Your task to perform on an android device: add a contact Image 0: 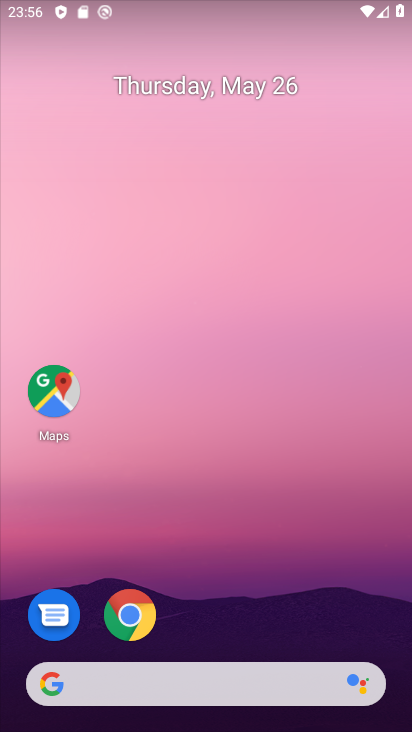
Step 0: drag from (357, 593) to (342, 217)
Your task to perform on an android device: add a contact Image 1: 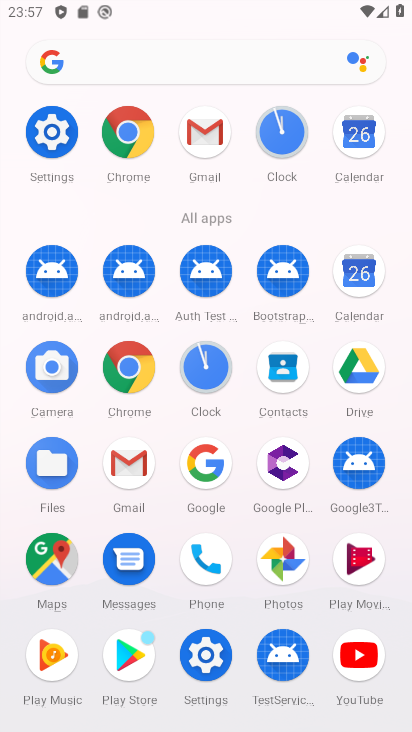
Step 1: click (279, 383)
Your task to perform on an android device: add a contact Image 2: 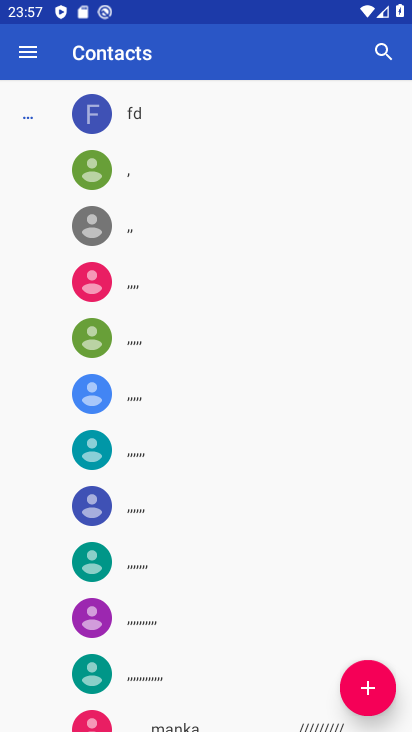
Step 2: click (365, 690)
Your task to perform on an android device: add a contact Image 3: 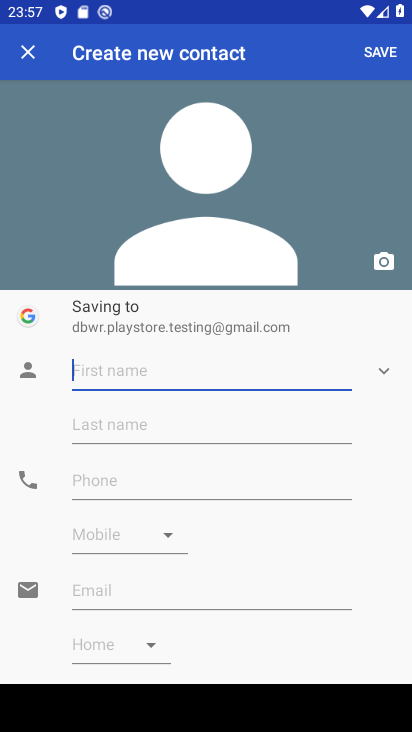
Step 3: click (224, 376)
Your task to perform on an android device: add a contact Image 4: 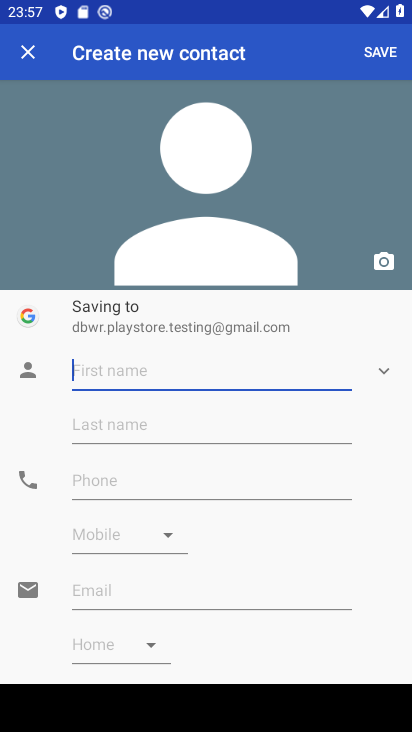
Step 4: type "lololl"
Your task to perform on an android device: add a contact Image 5: 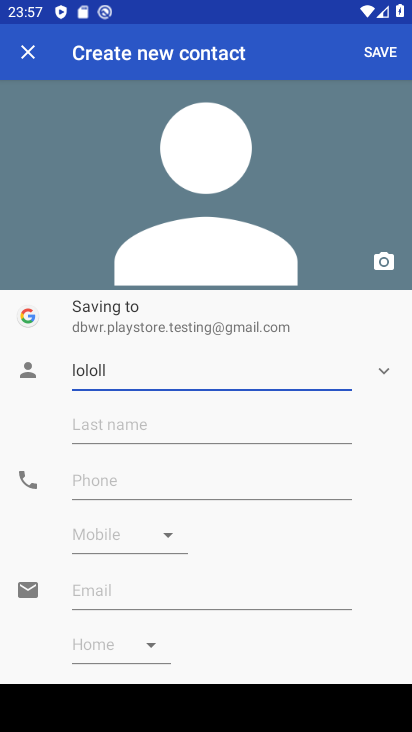
Step 5: click (285, 491)
Your task to perform on an android device: add a contact Image 6: 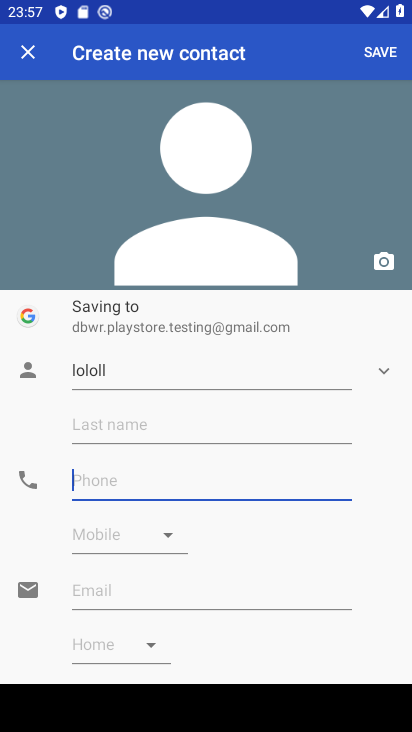
Step 6: type "1234567890"
Your task to perform on an android device: add a contact Image 7: 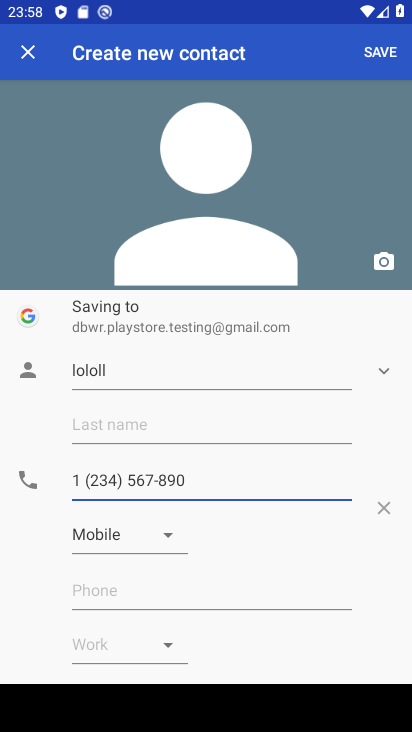
Step 7: click (376, 70)
Your task to perform on an android device: add a contact Image 8: 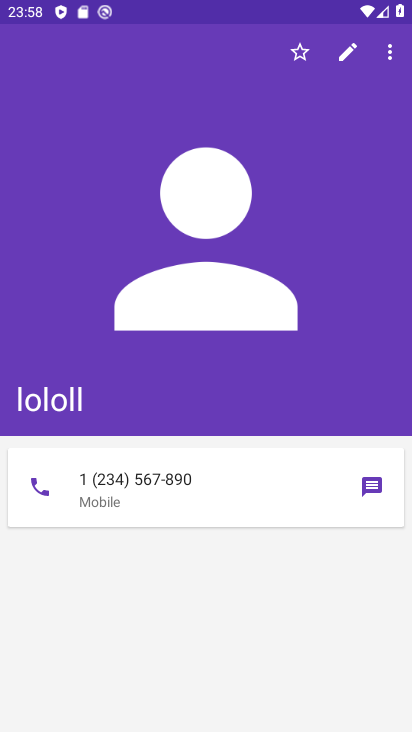
Step 8: task complete